Your task to perform on an android device: Add lg ultragear to the cart on bestbuy.com, then select checkout. Image 0: 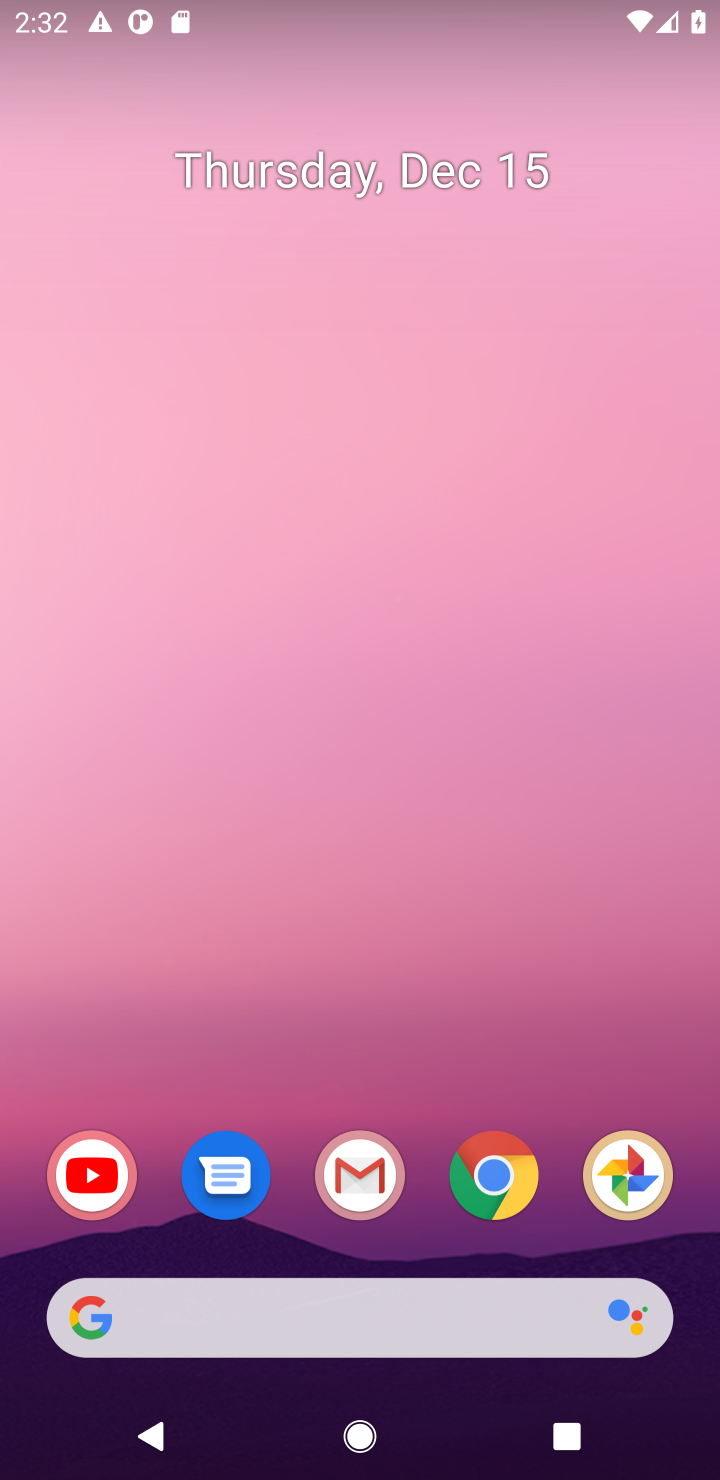
Step 0: click (495, 1177)
Your task to perform on an android device: Add lg ultragear to the cart on bestbuy.com, then select checkout. Image 1: 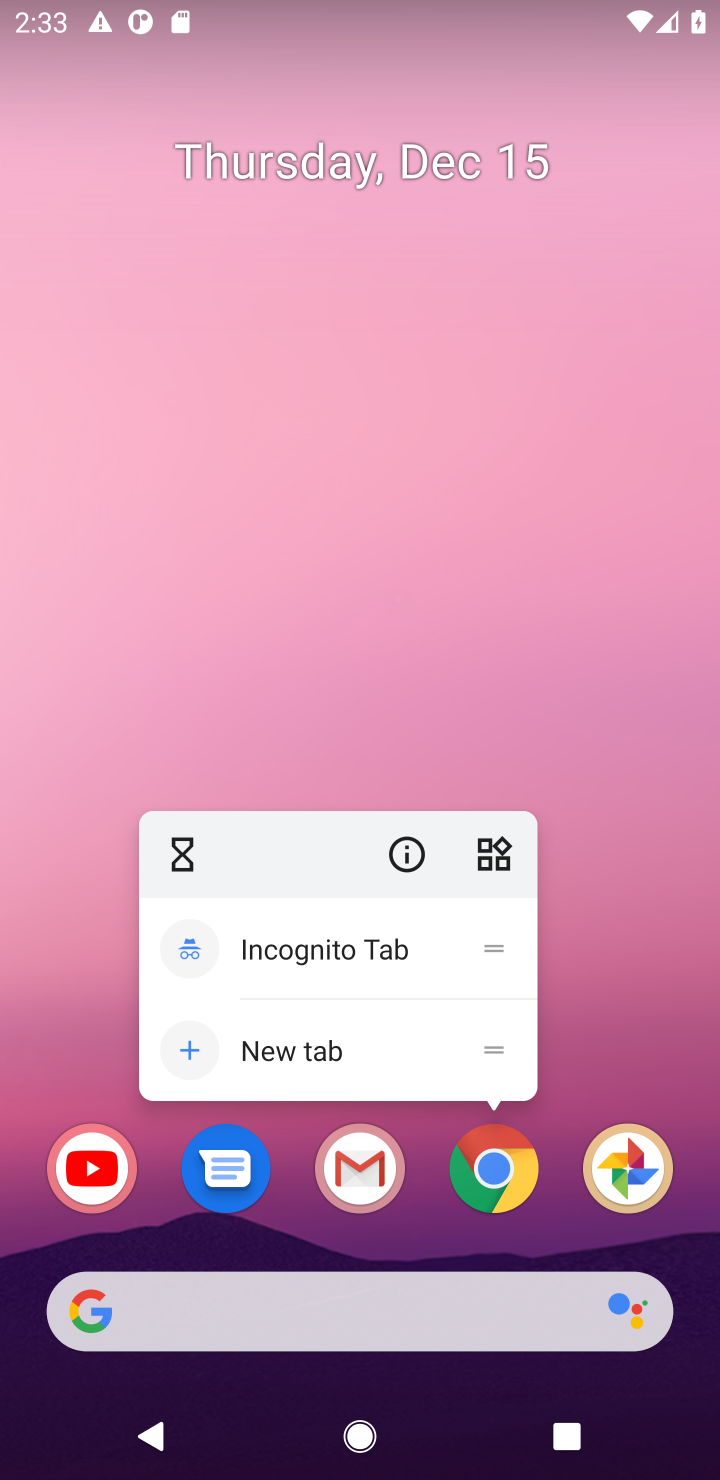
Step 1: click (513, 1177)
Your task to perform on an android device: Add lg ultragear to the cart on bestbuy.com, then select checkout. Image 2: 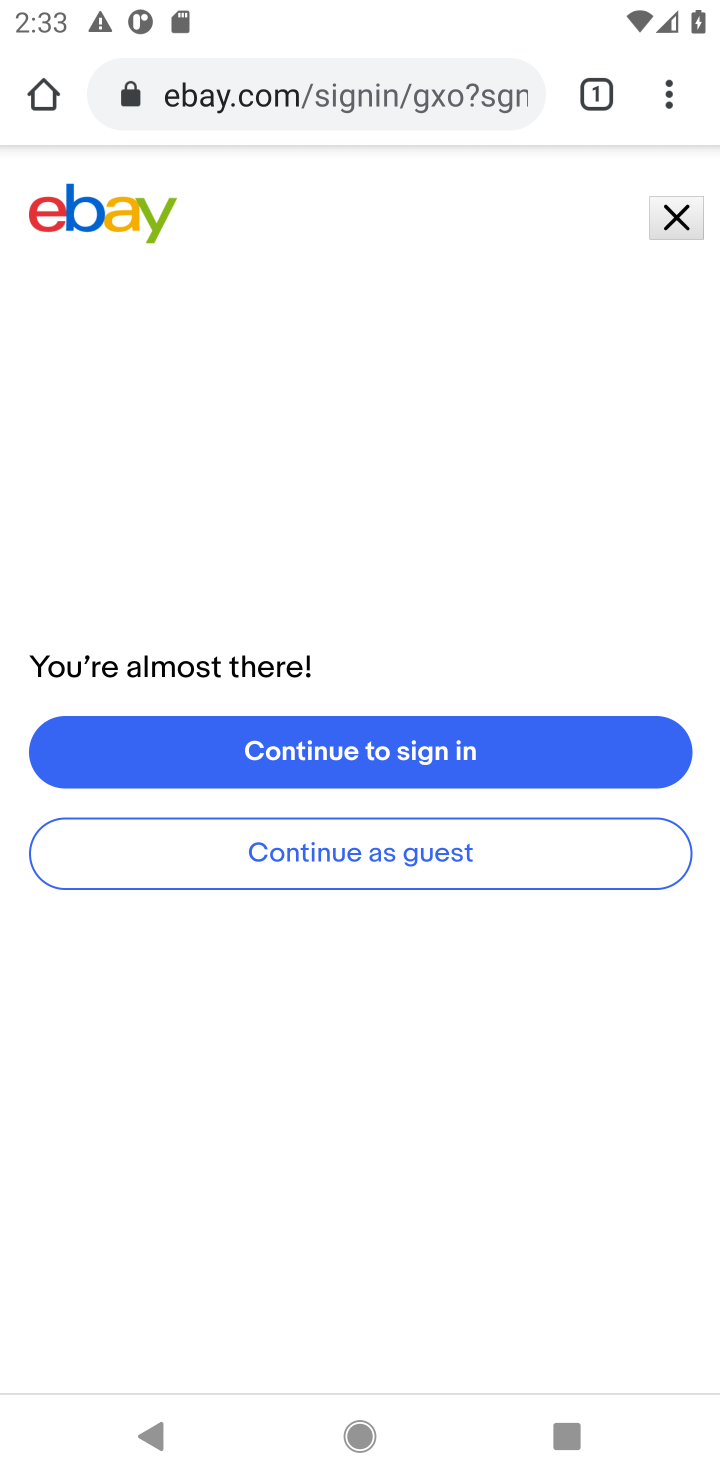
Step 2: click (676, 225)
Your task to perform on an android device: Add lg ultragear to the cart on bestbuy.com, then select checkout. Image 3: 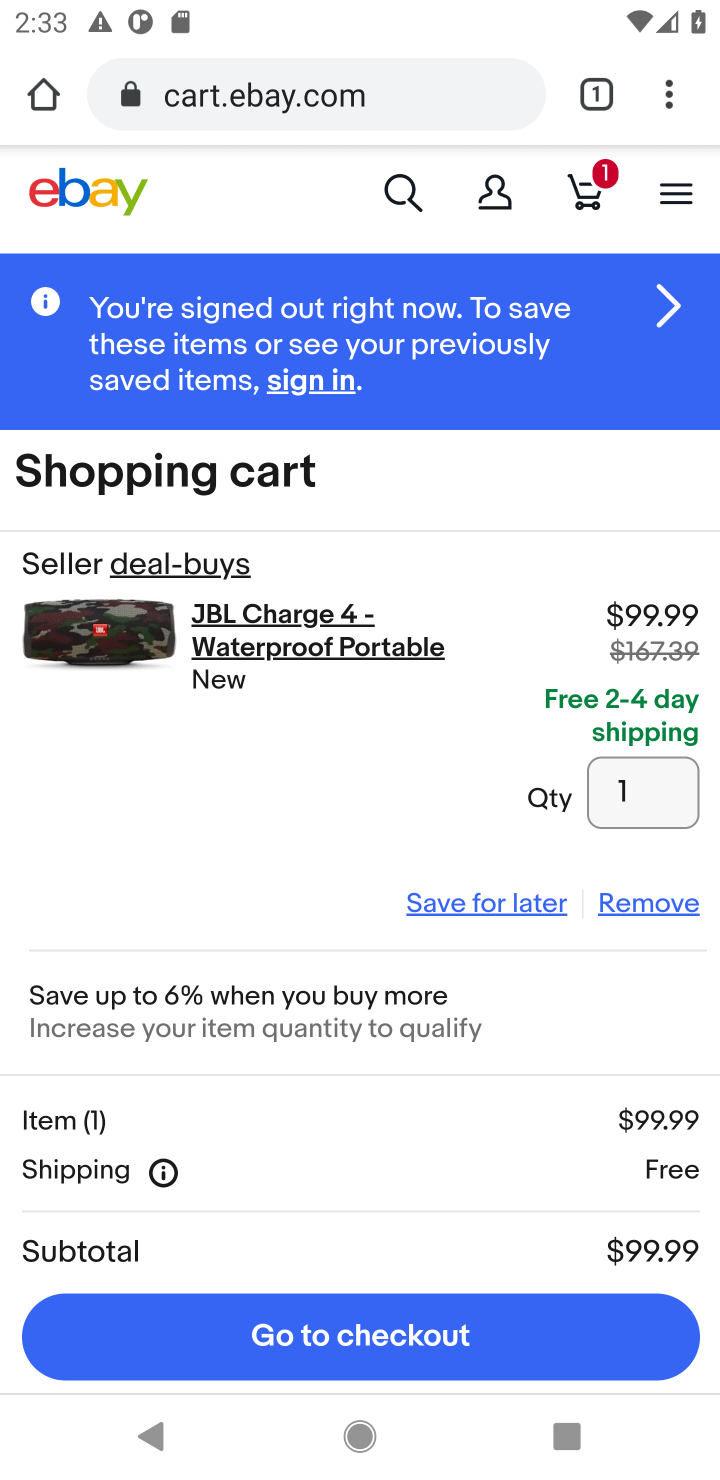
Step 3: click (272, 100)
Your task to perform on an android device: Add lg ultragear to the cart on bestbuy.com, then select checkout. Image 4: 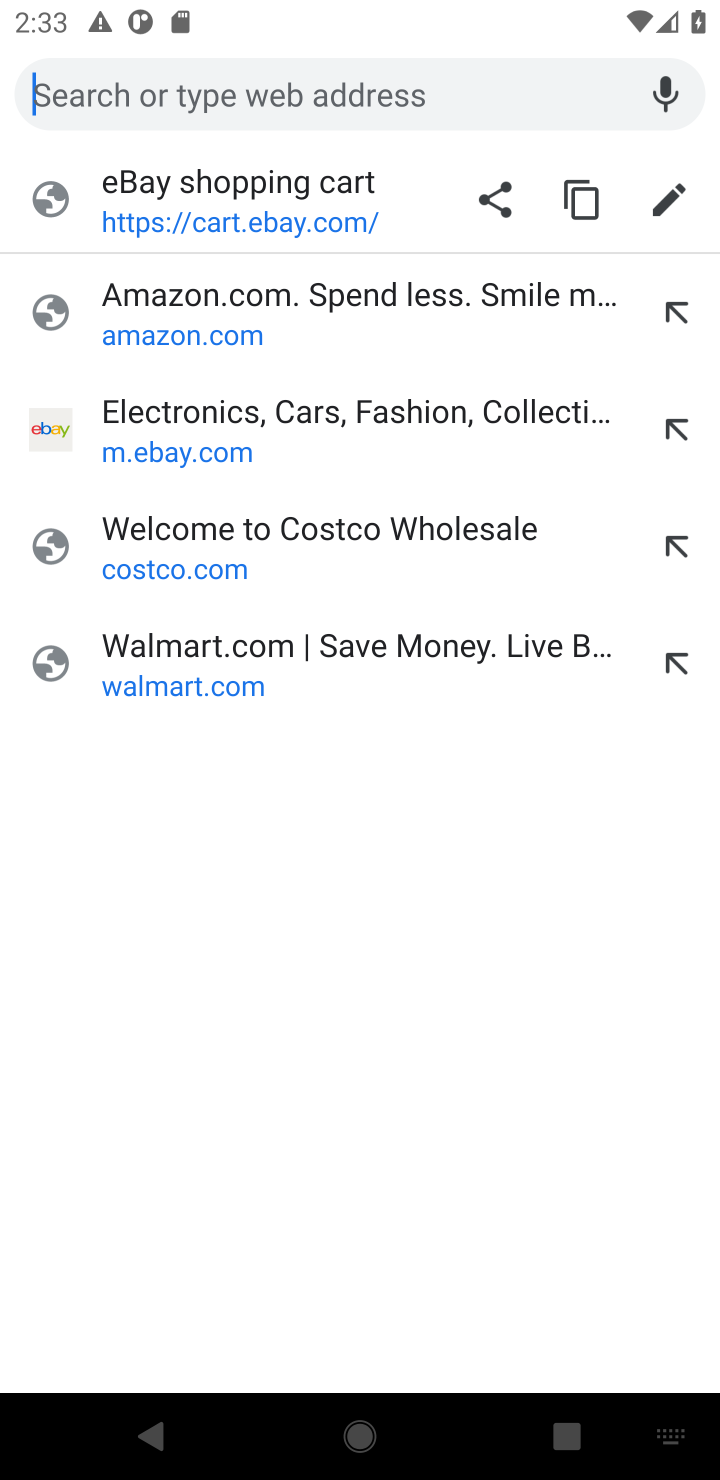
Step 4: type "bestbuy"
Your task to perform on an android device: Add lg ultragear to the cart on bestbuy.com, then select checkout. Image 5: 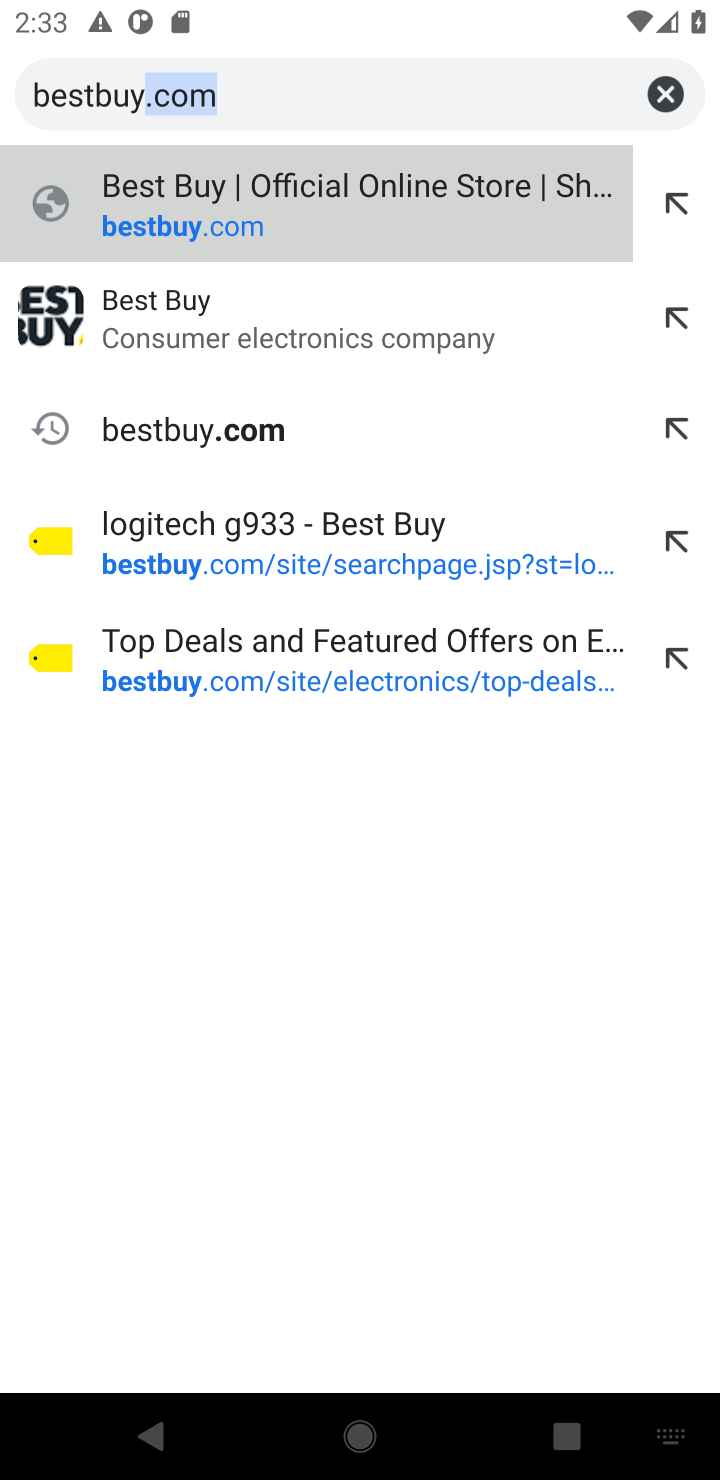
Step 5: press enter
Your task to perform on an android device: Add lg ultragear to the cart on bestbuy.com, then select checkout. Image 6: 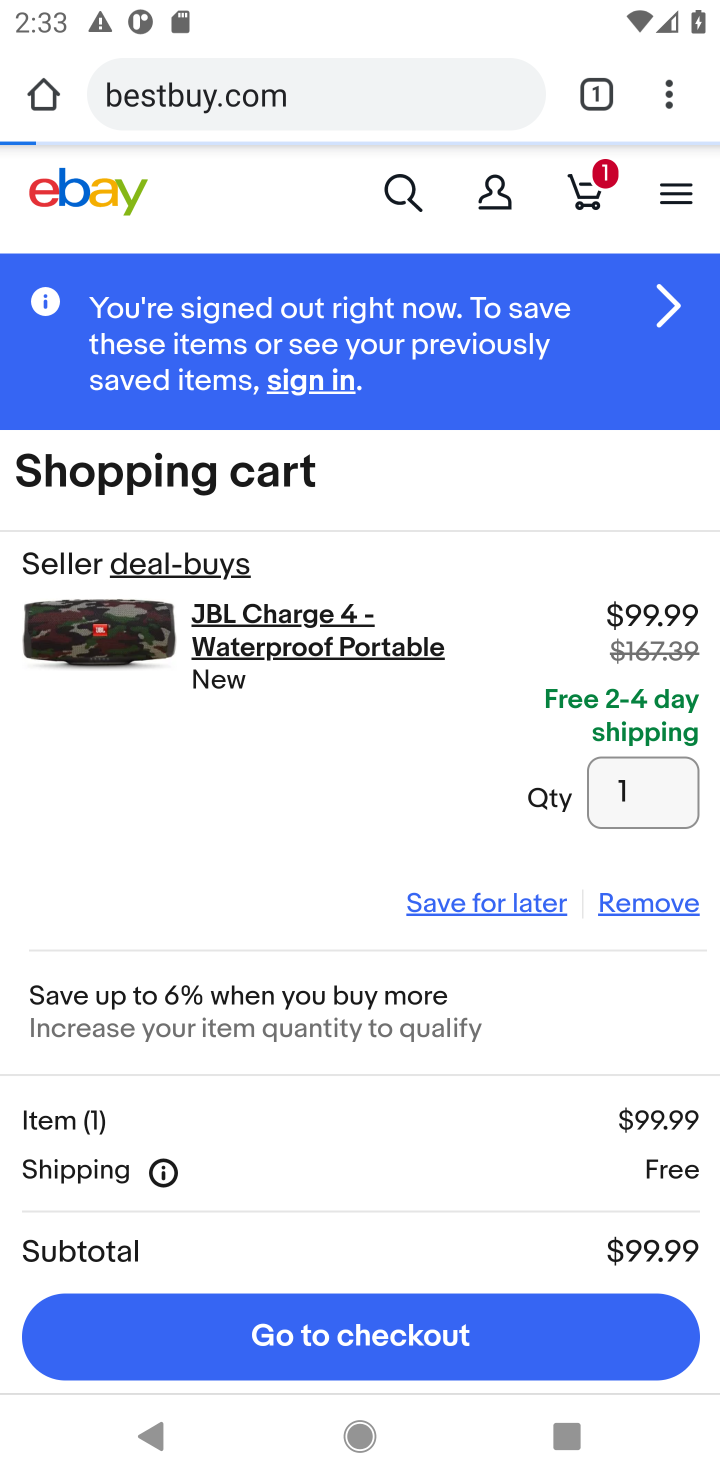
Step 6: click (446, 98)
Your task to perform on an android device: Add lg ultragear to the cart on bestbuy.com, then select checkout. Image 7: 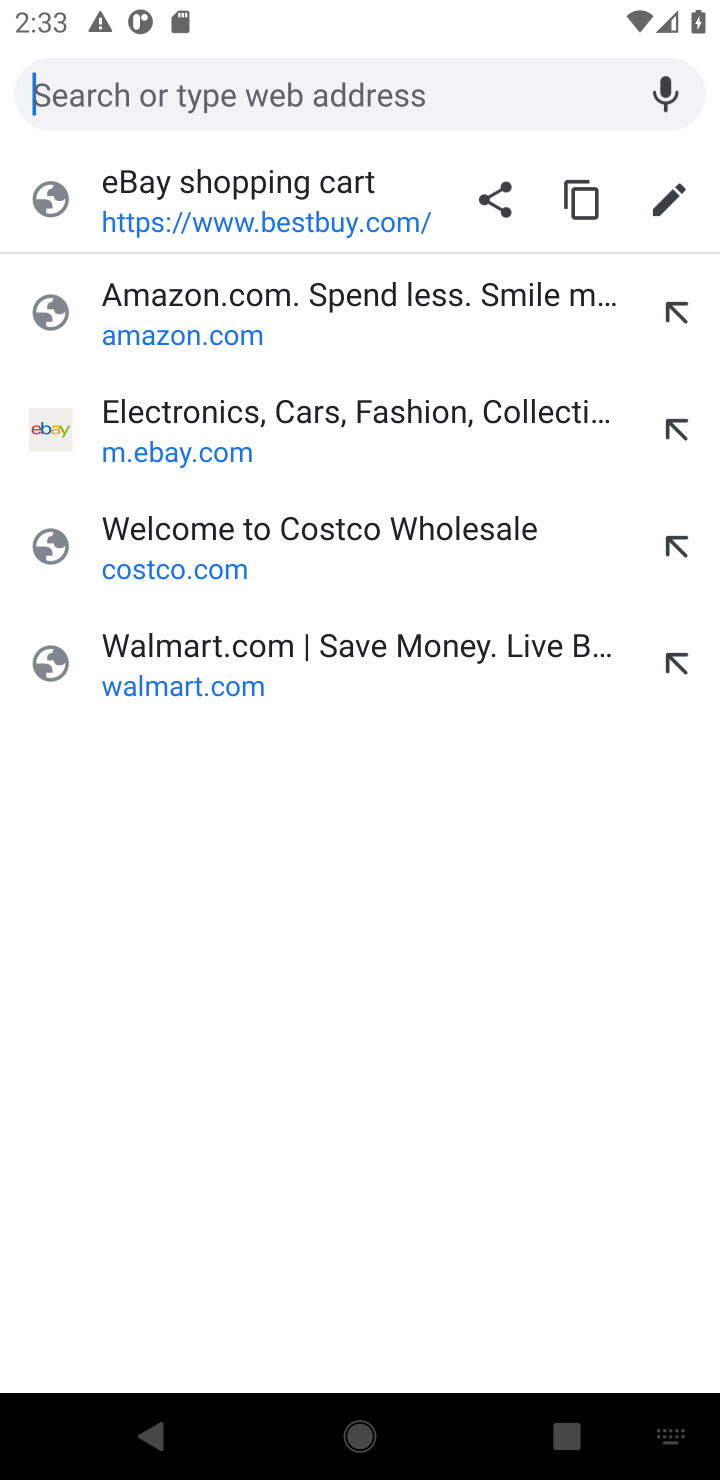
Step 7: type "bestbuy"
Your task to perform on an android device: Add lg ultragear to the cart on bestbuy.com, then select checkout. Image 8: 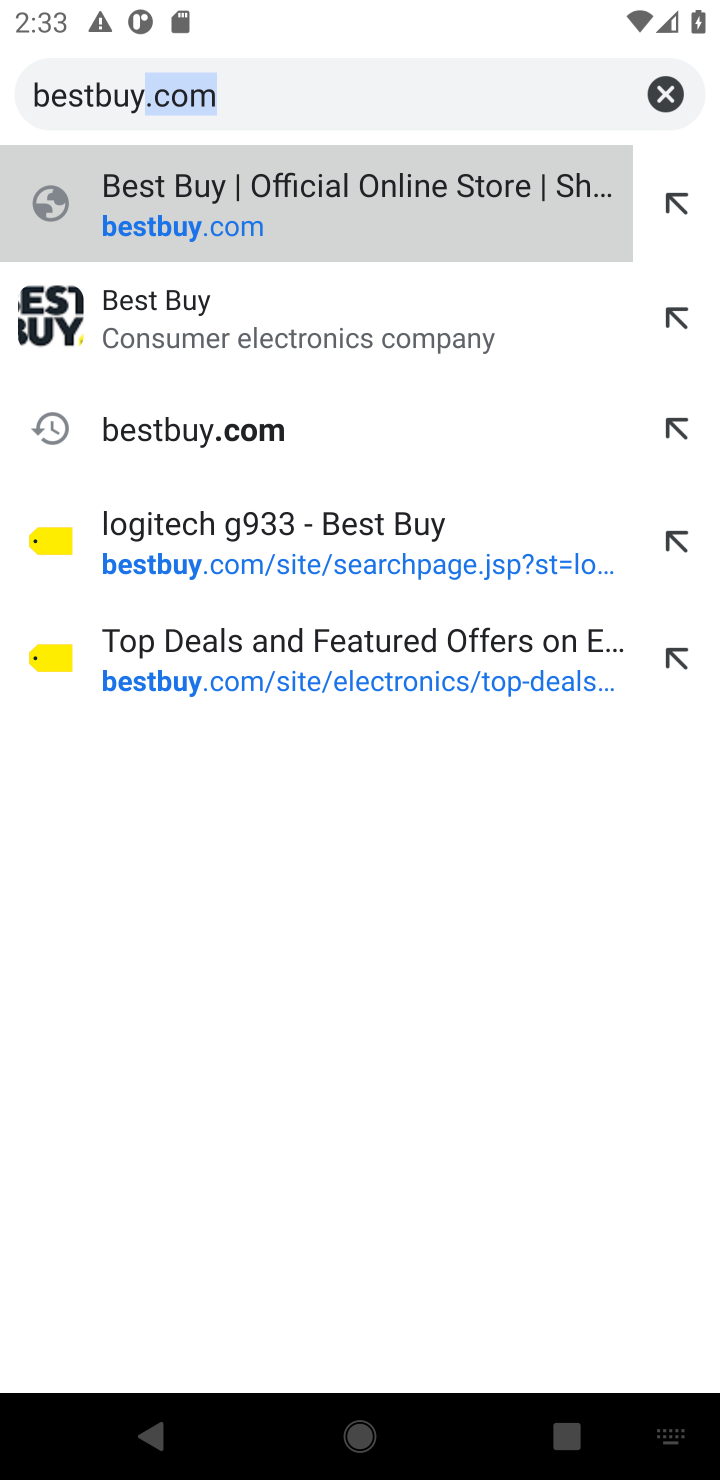
Step 8: press enter
Your task to perform on an android device: Add lg ultragear to the cart on bestbuy.com, then select checkout. Image 9: 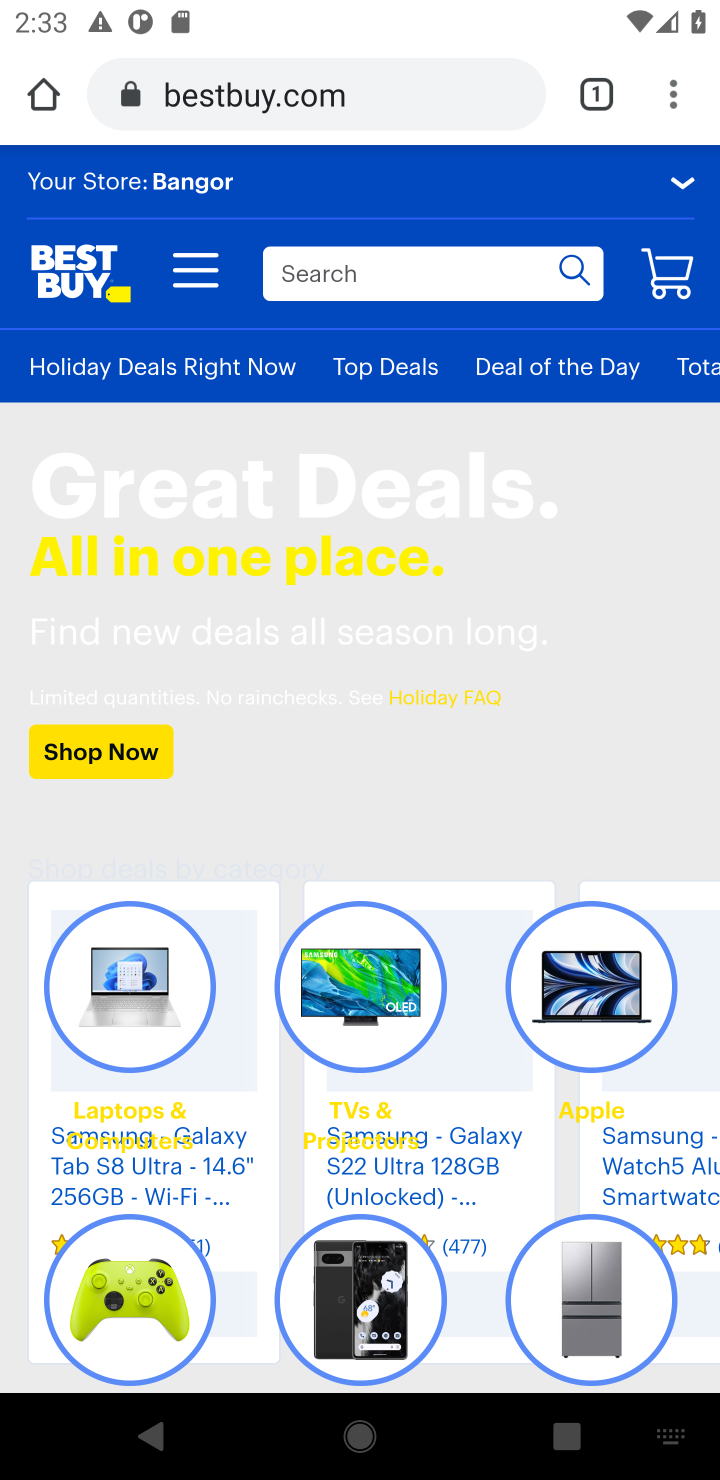
Step 9: click (239, 97)
Your task to perform on an android device: Add lg ultragear to the cart on bestbuy.com, then select checkout. Image 10: 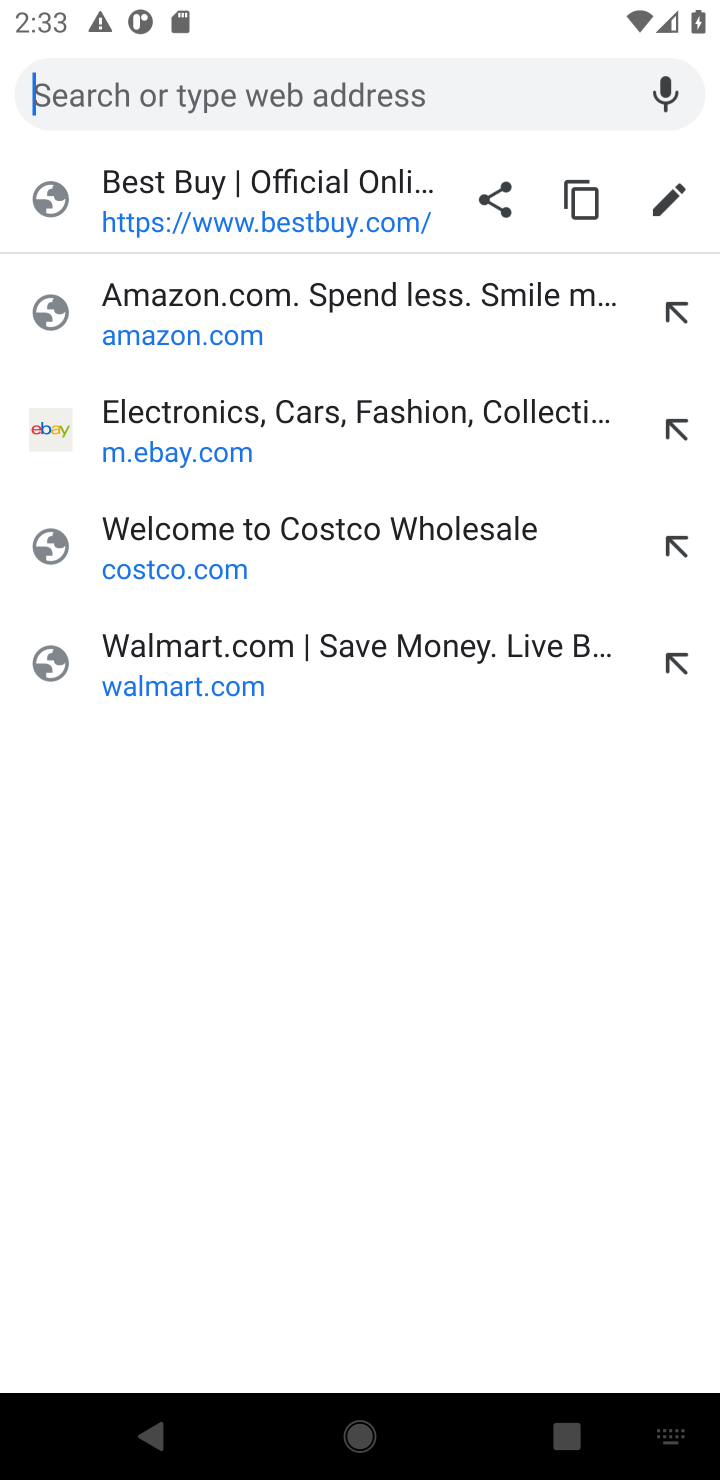
Step 10: press back button
Your task to perform on an android device: Add lg ultragear to the cart on bestbuy.com, then select checkout. Image 11: 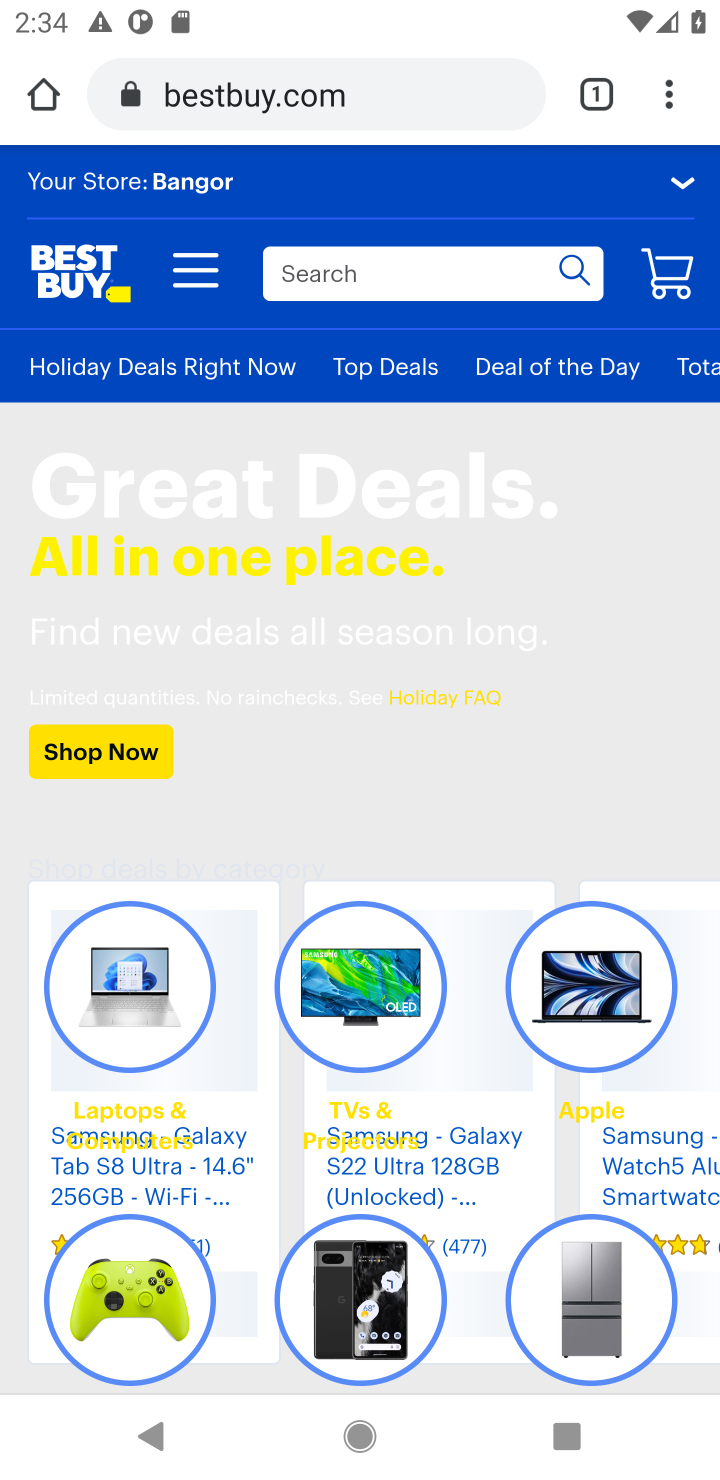
Step 11: click (424, 273)
Your task to perform on an android device: Add lg ultragear to the cart on bestbuy.com, then select checkout. Image 12: 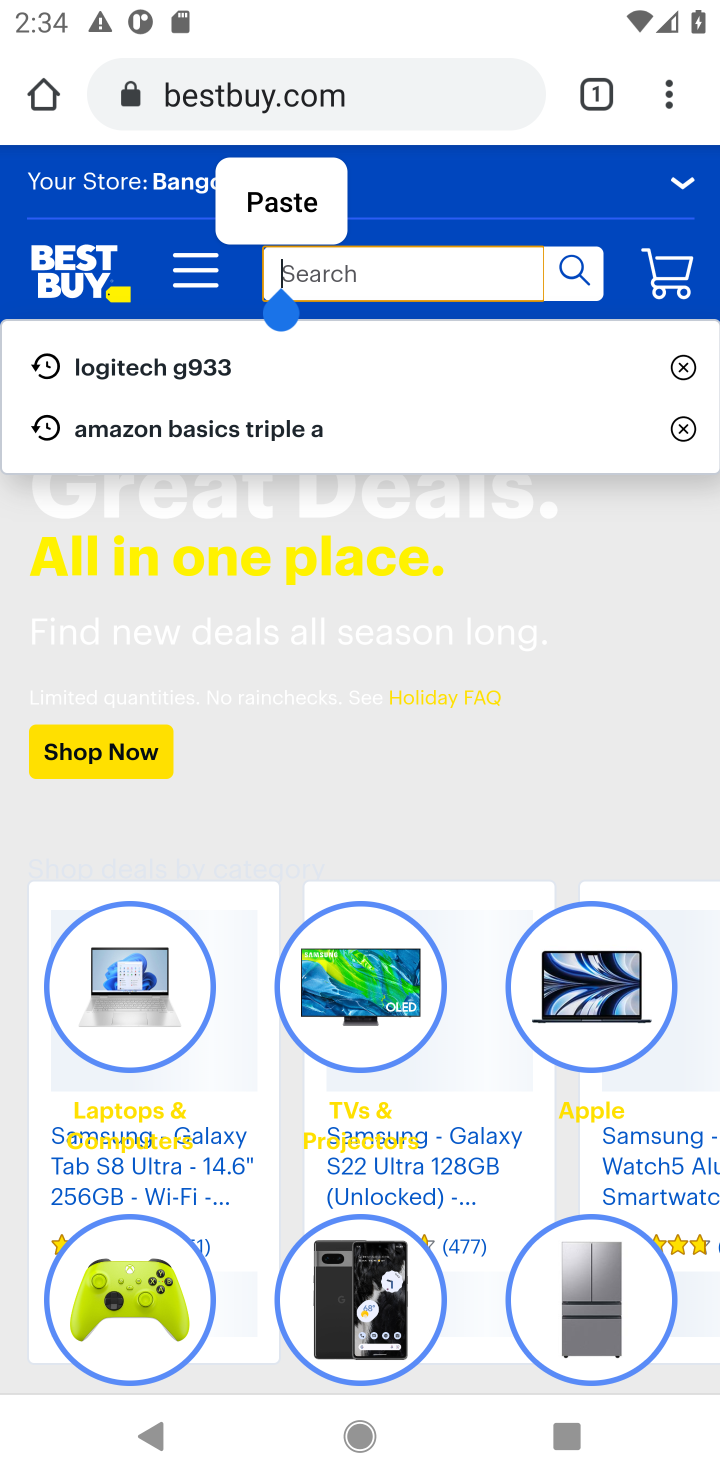
Step 12: type " lg ultragear"
Your task to perform on an android device: Add lg ultragear to the cart on bestbuy.com, then select checkout. Image 13: 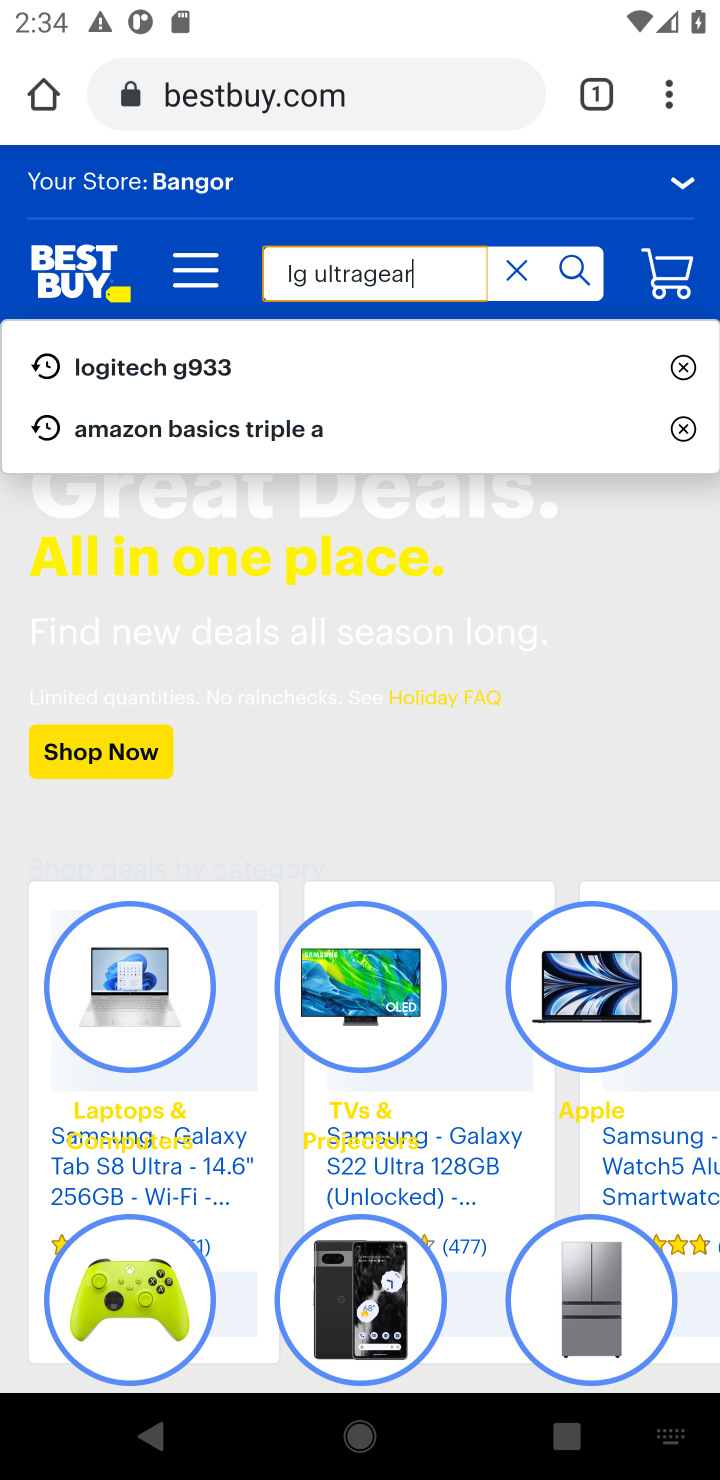
Step 13: press enter
Your task to perform on an android device: Add lg ultragear to the cart on bestbuy.com, then select checkout. Image 14: 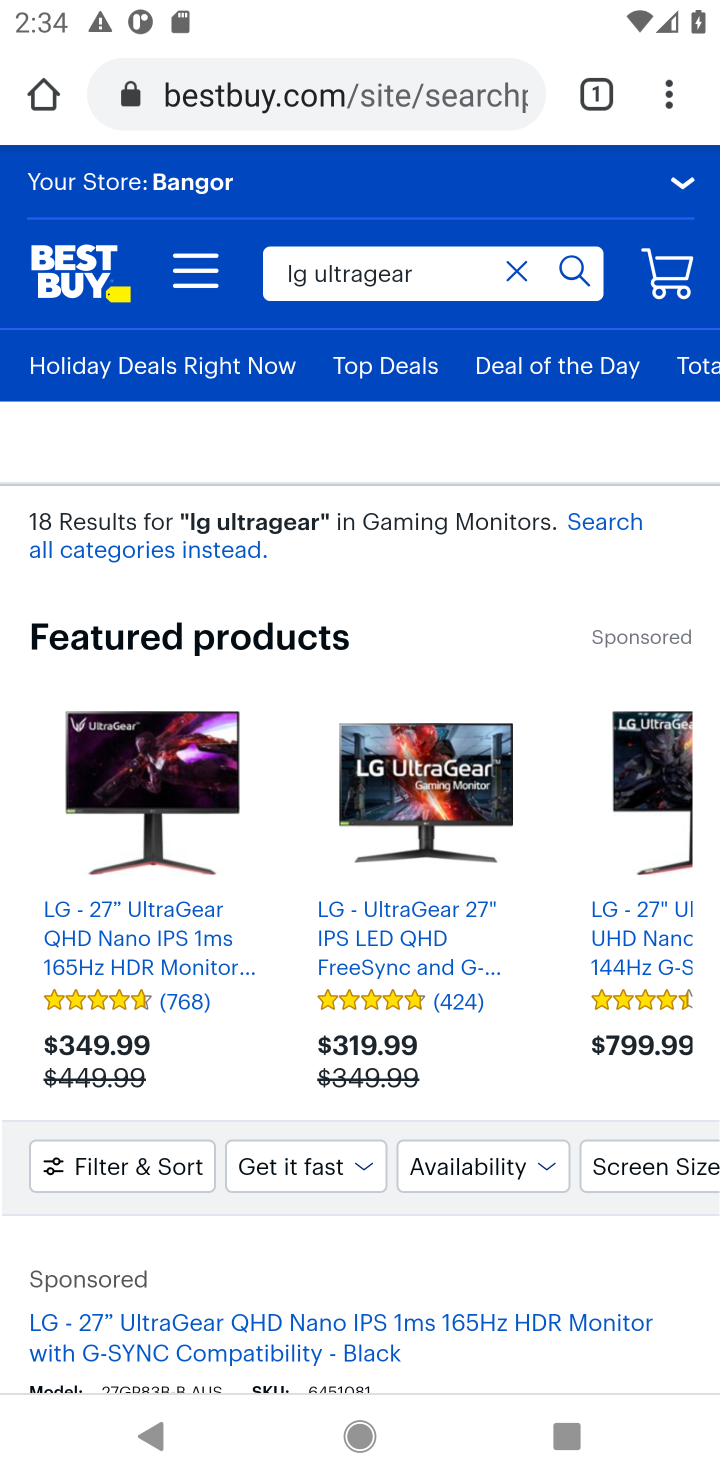
Step 14: drag from (312, 1240) to (434, 428)
Your task to perform on an android device: Add lg ultragear to the cart on bestbuy.com, then select checkout. Image 15: 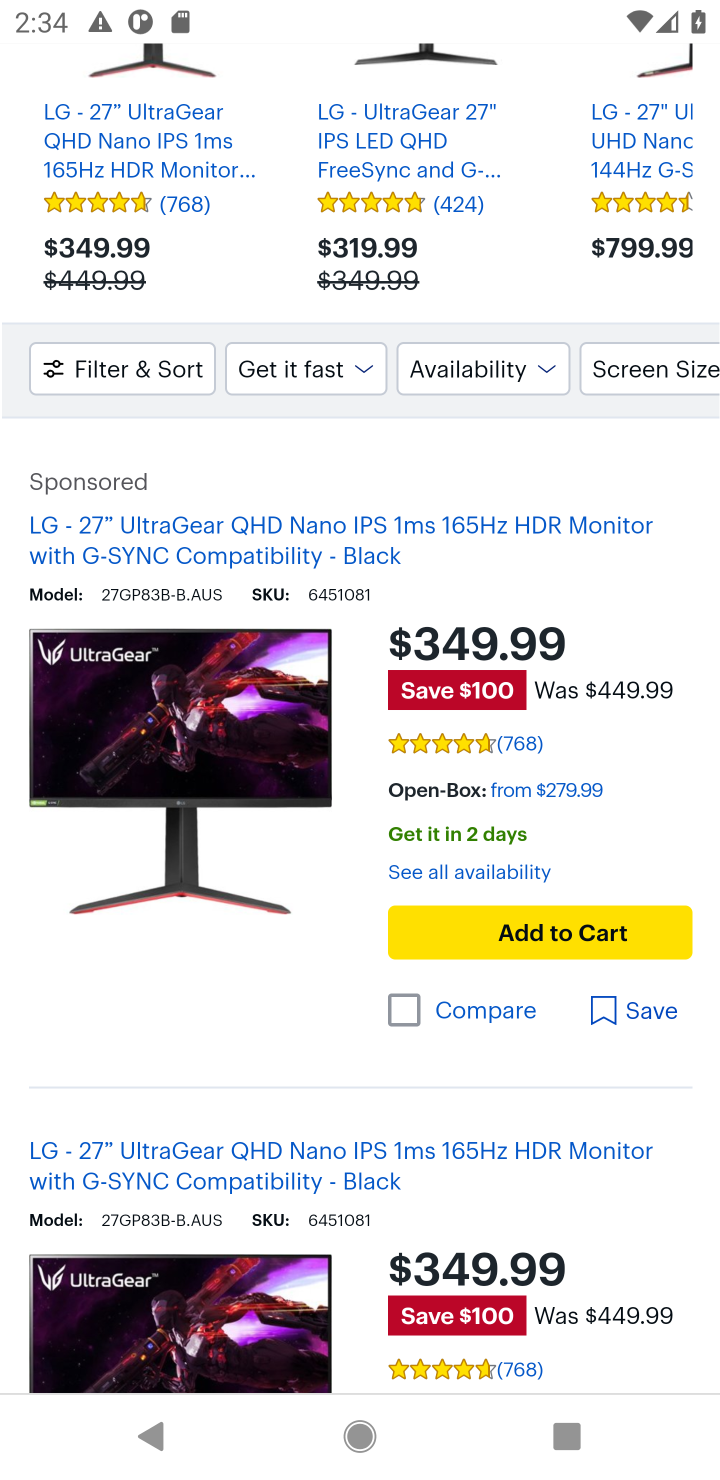
Step 15: click (210, 752)
Your task to perform on an android device: Add lg ultragear to the cart on bestbuy.com, then select checkout. Image 16: 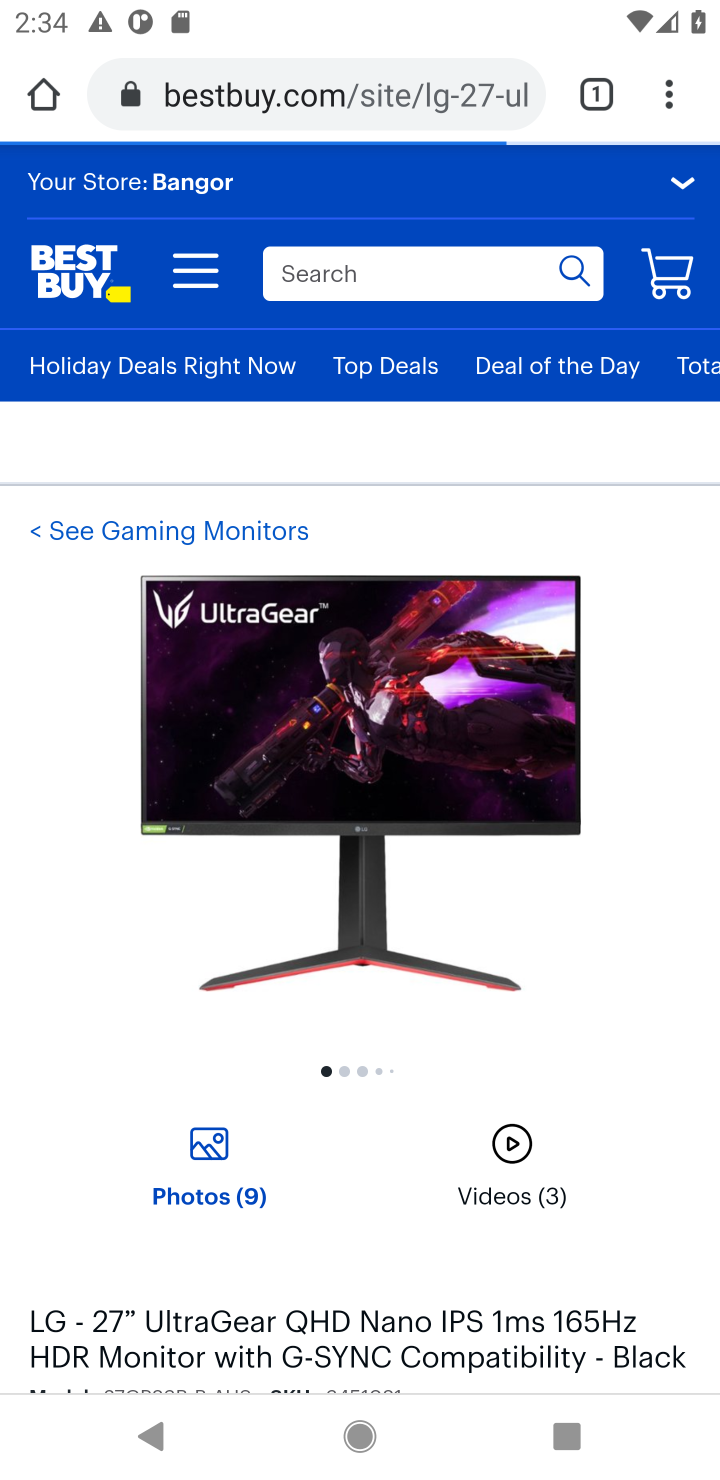
Step 16: drag from (428, 1189) to (700, 491)
Your task to perform on an android device: Add lg ultragear to the cart on bestbuy.com, then select checkout. Image 17: 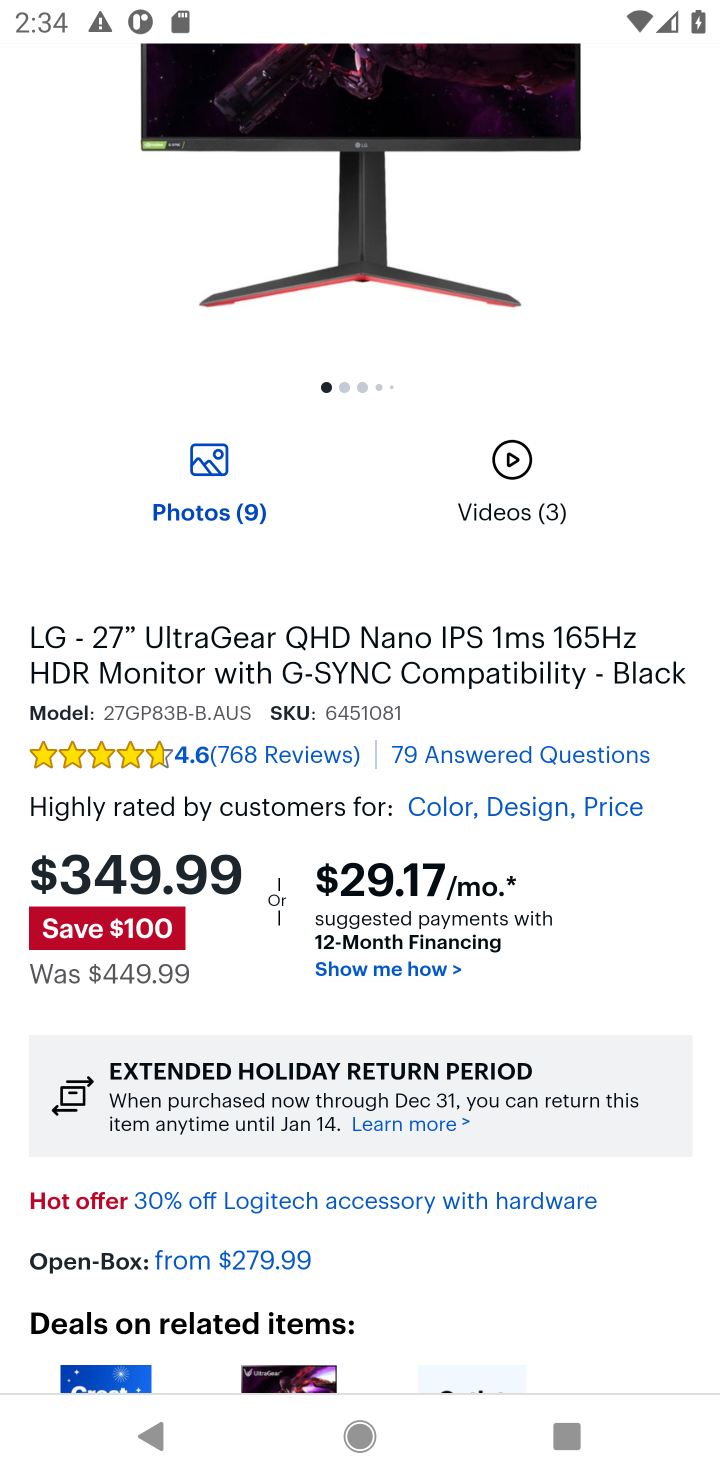
Step 17: drag from (578, 1122) to (717, 706)
Your task to perform on an android device: Add lg ultragear to the cart on bestbuy.com, then select checkout. Image 18: 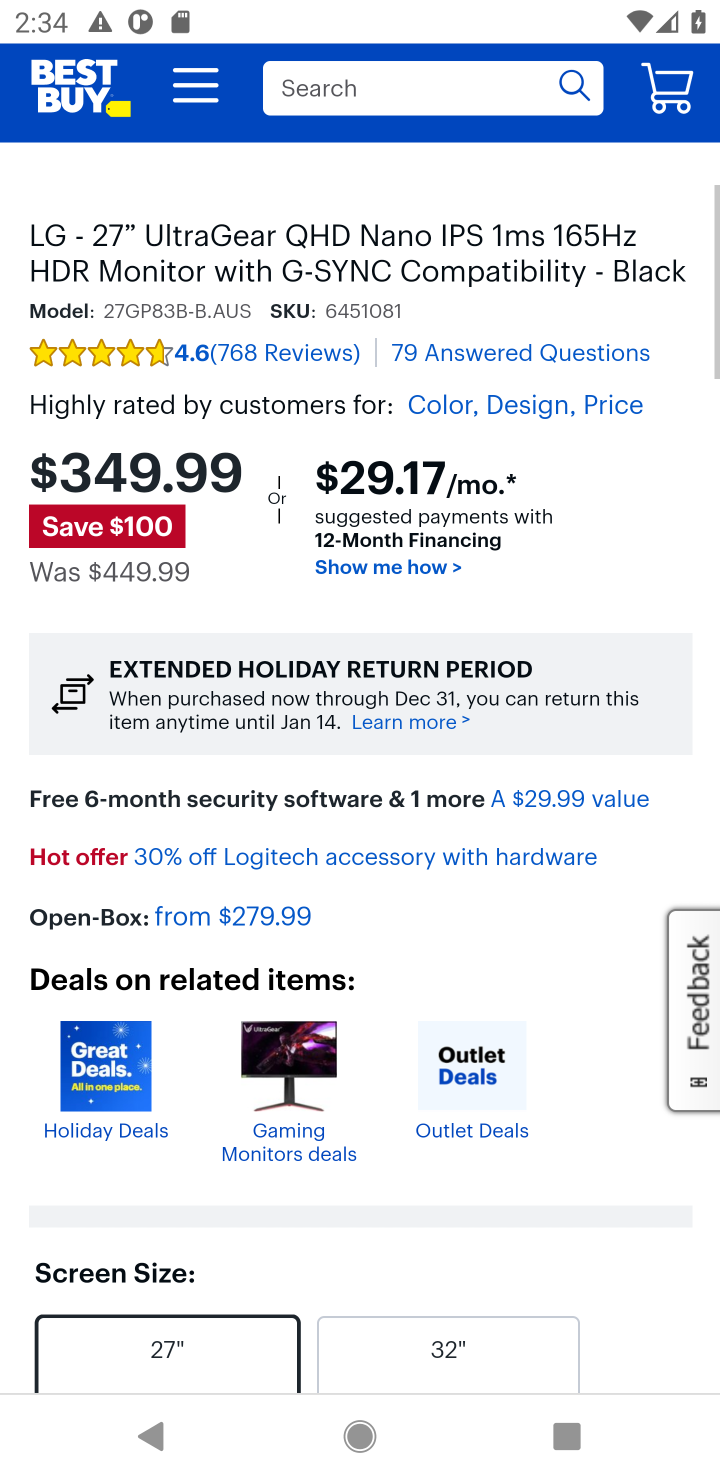
Step 18: drag from (492, 1065) to (630, 390)
Your task to perform on an android device: Add lg ultragear to the cart on bestbuy.com, then select checkout. Image 19: 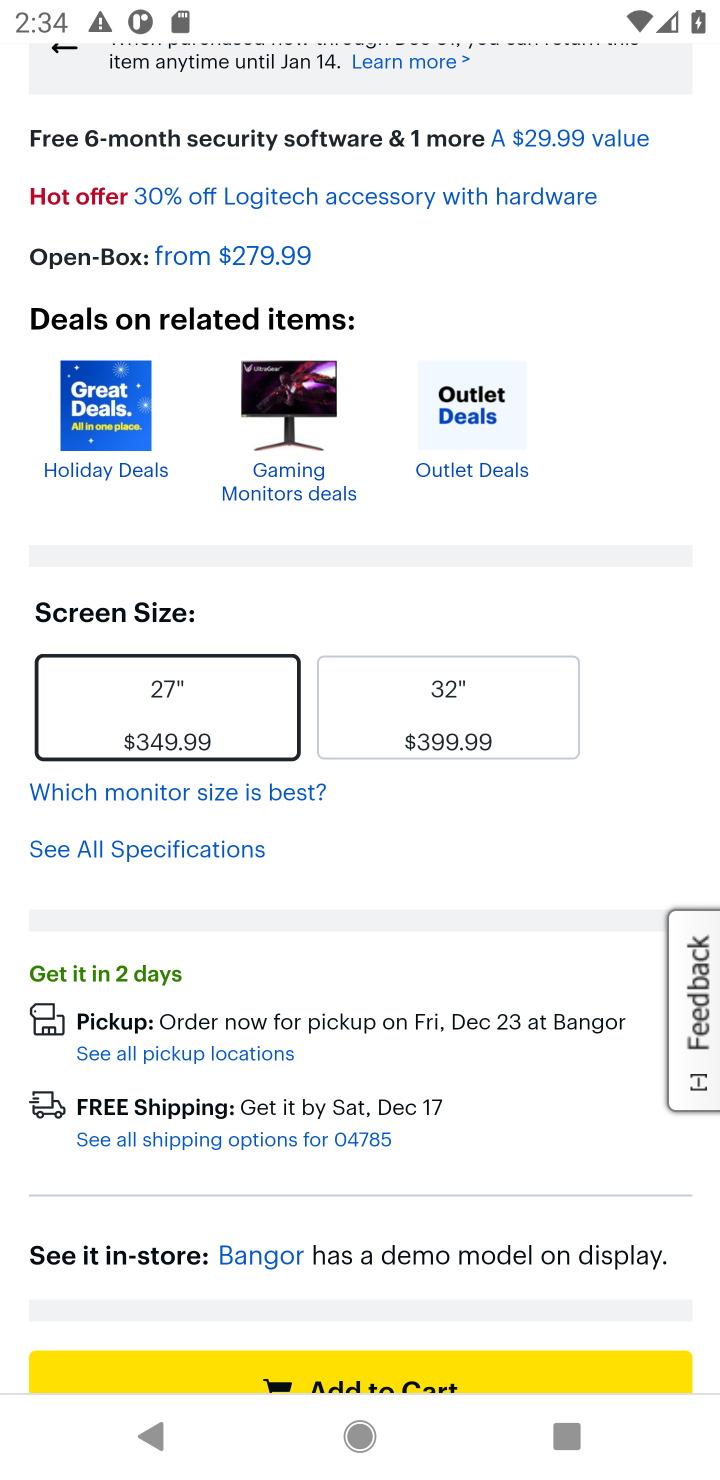
Step 19: drag from (498, 977) to (644, 440)
Your task to perform on an android device: Add lg ultragear to the cart on bestbuy.com, then select checkout. Image 20: 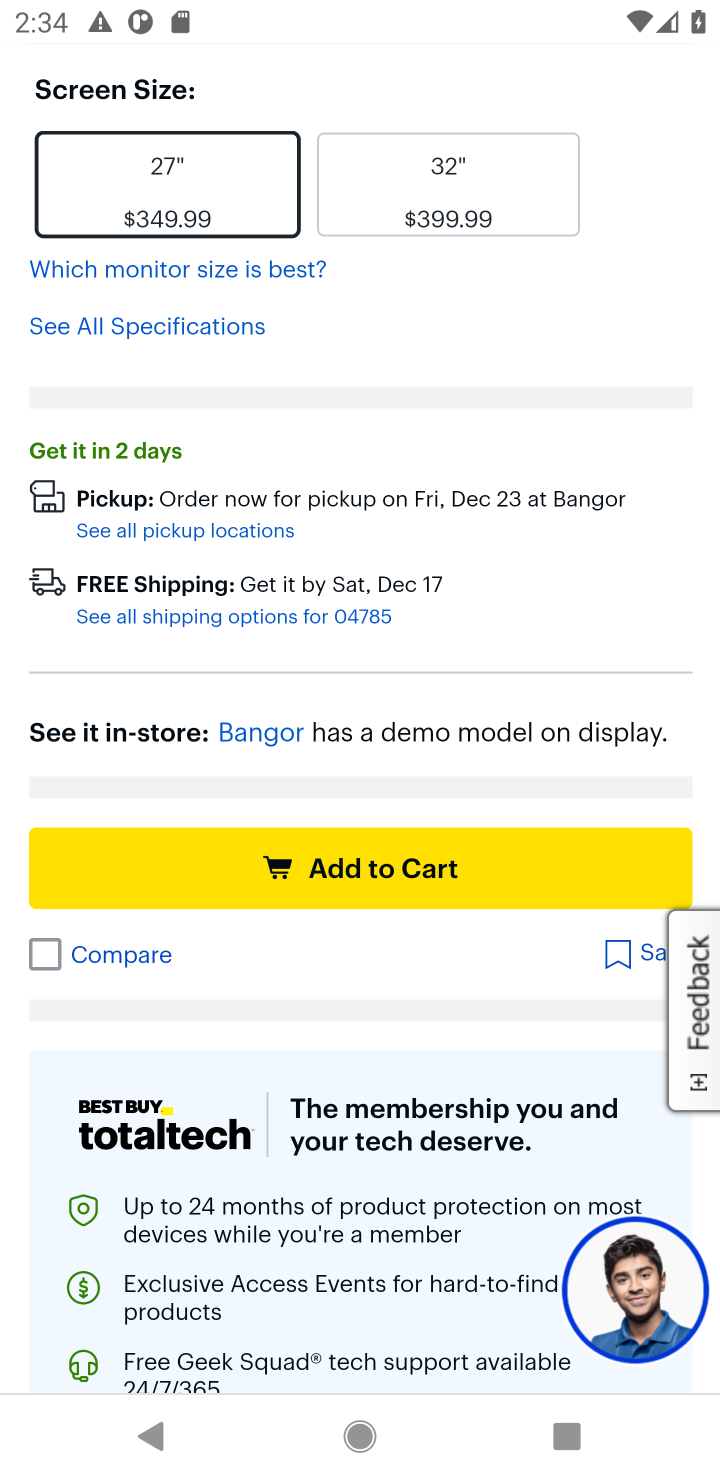
Step 20: click (397, 869)
Your task to perform on an android device: Add lg ultragear to the cart on bestbuy.com, then select checkout. Image 21: 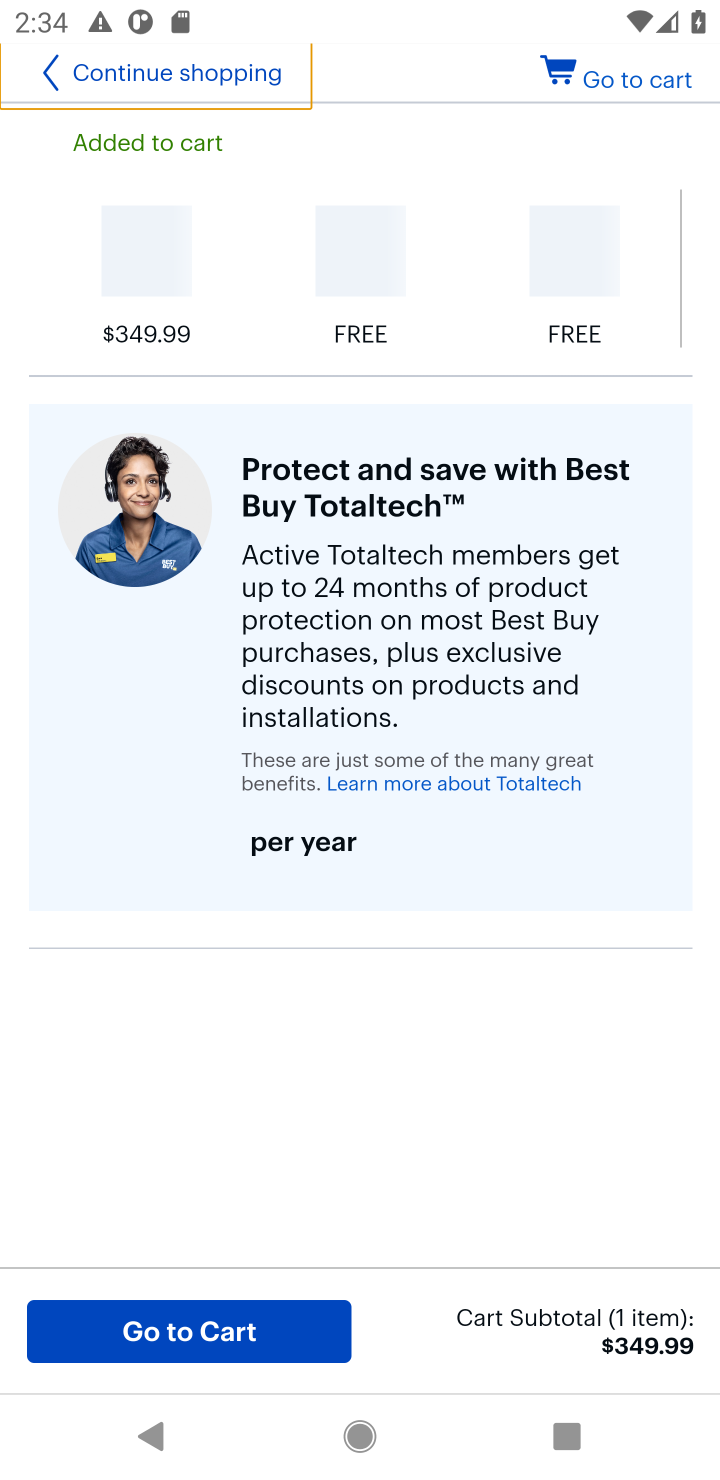
Step 21: click (160, 1334)
Your task to perform on an android device: Add lg ultragear to the cart on bestbuy.com, then select checkout. Image 22: 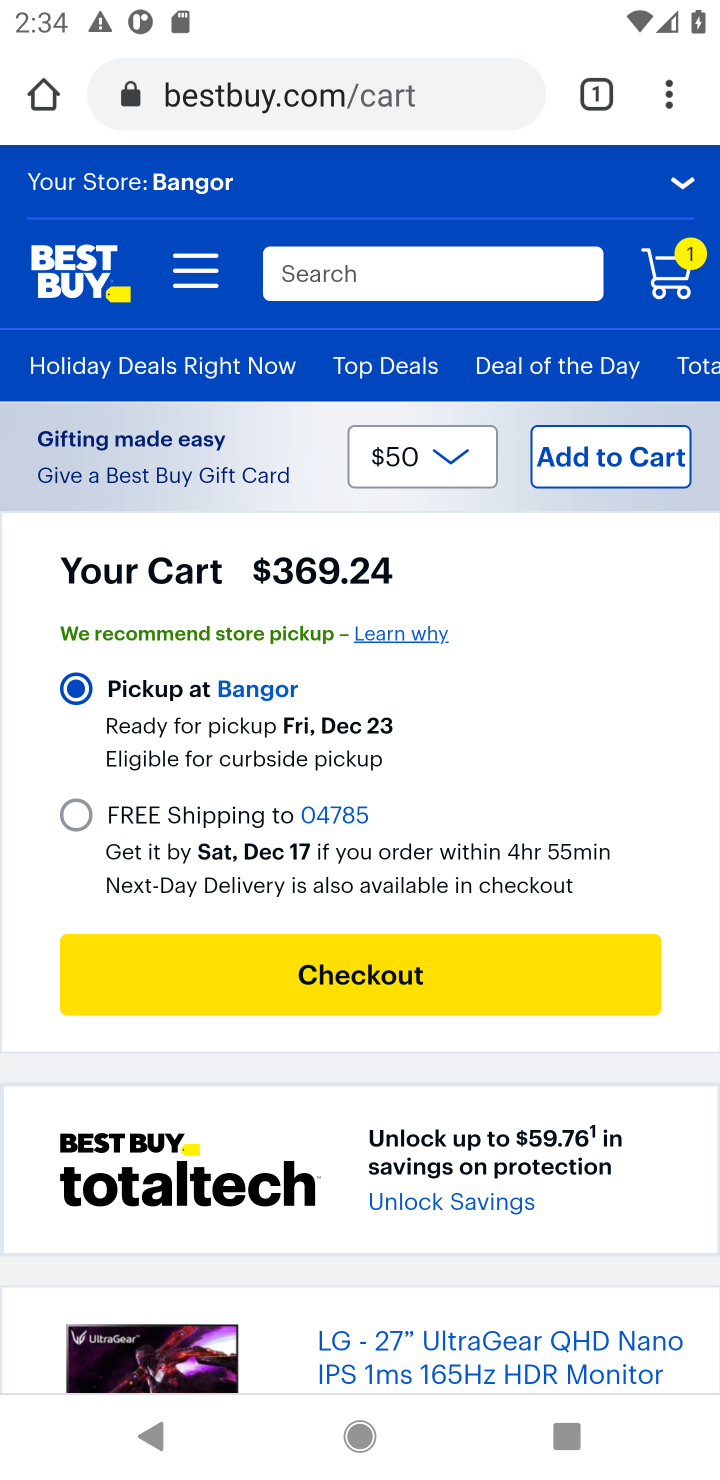
Step 22: click (328, 976)
Your task to perform on an android device: Add lg ultragear to the cart on bestbuy.com, then select checkout. Image 23: 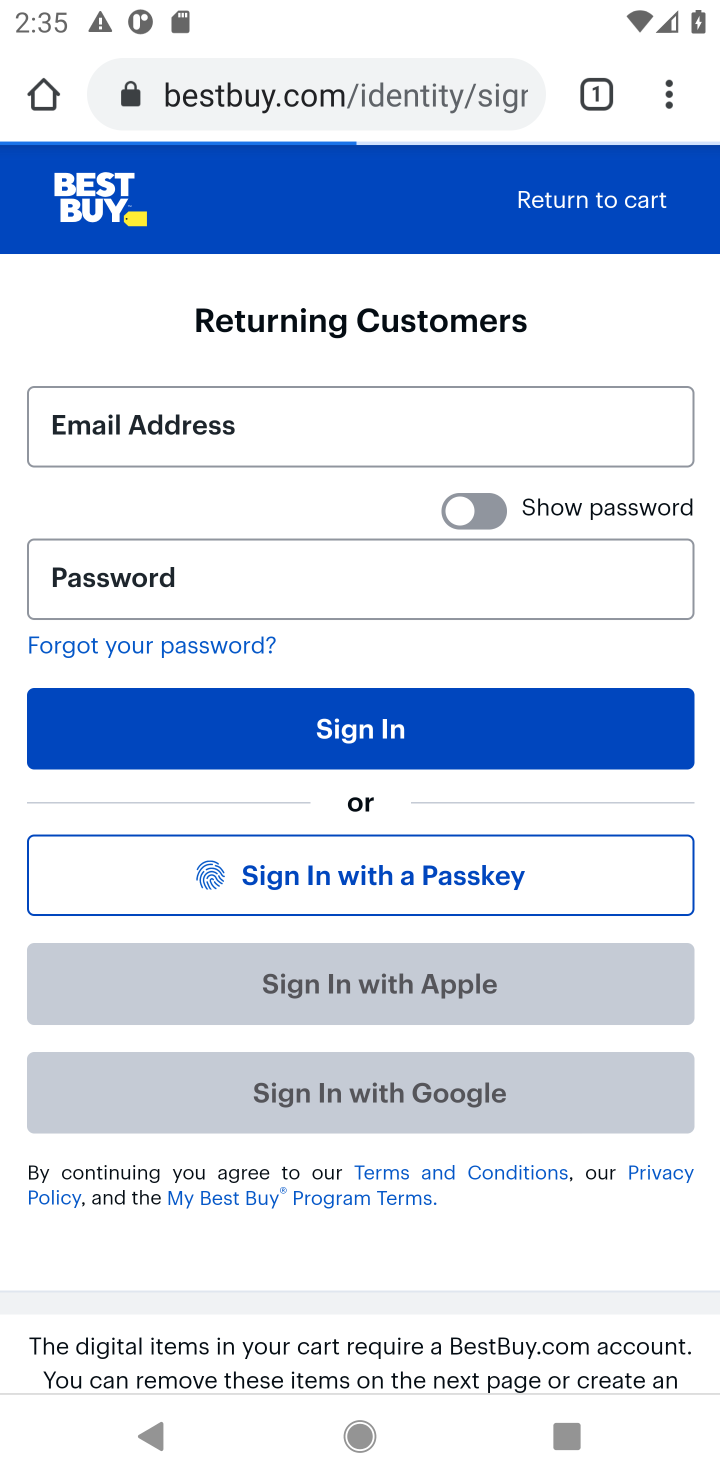
Step 23: task complete